Your task to perform on an android device: check the backup settings in the google photos Image 0: 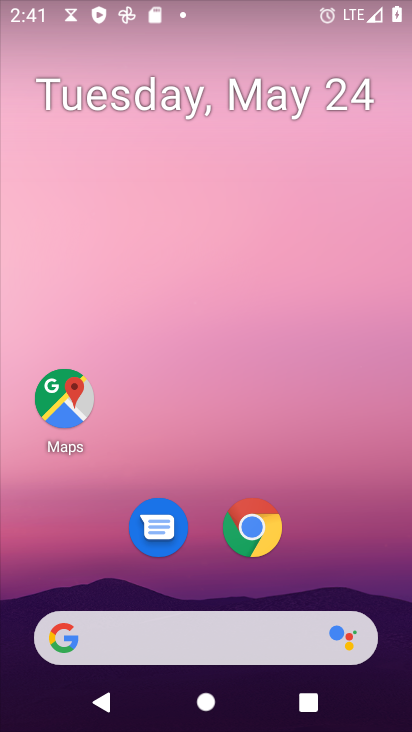
Step 0: press home button
Your task to perform on an android device: check the backup settings in the google photos Image 1: 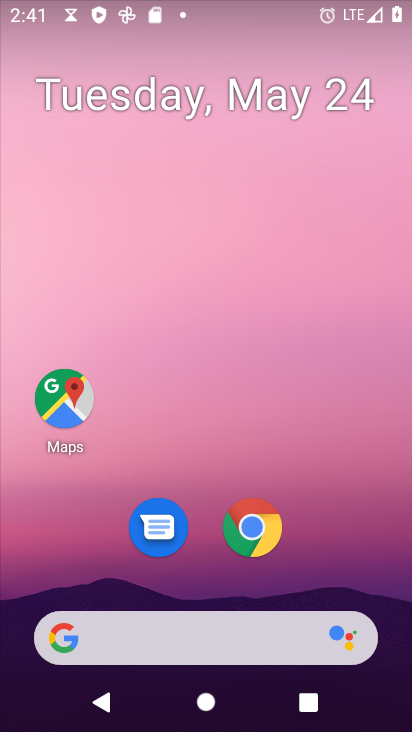
Step 1: drag from (215, 636) to (250, 215)
Your task to perform on an android device: check the backup settings in the google photos Image 2: 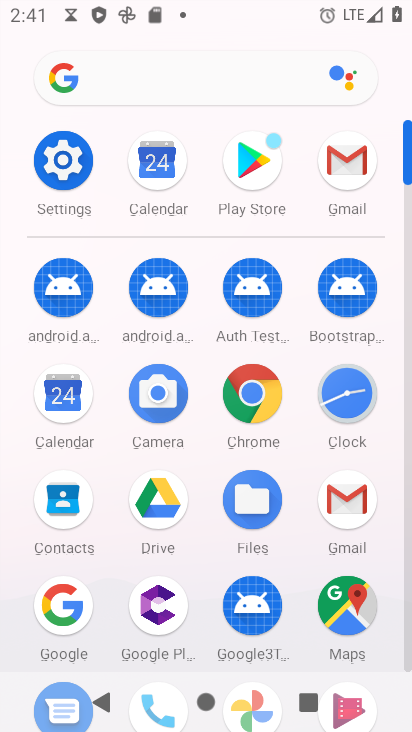
Step 2: drag from (222, 646) to (277, 258)
Your task to perform on an android device: check the backup settings in the google photos Image 3: 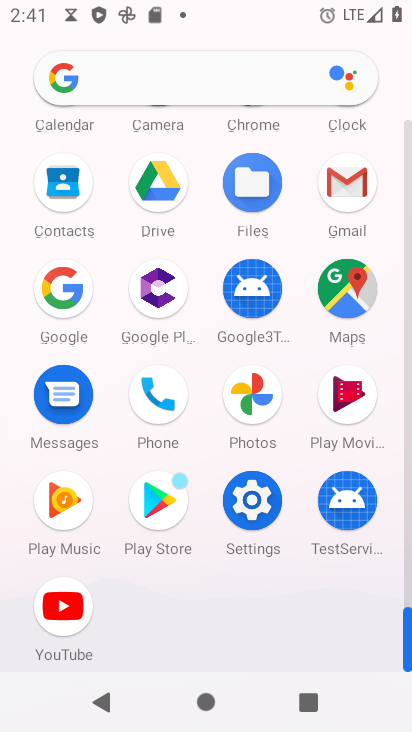
Step 3: click (237, 405)
Your task to perform on an android device: check the backup settings in the google photos Image 4: 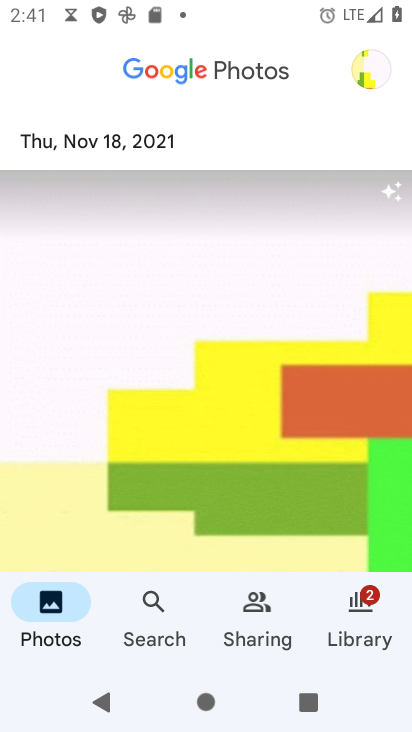
Step 4: click (356, 84)
Your task to perform on an android device: check the backup settings in the google photos Image 5: 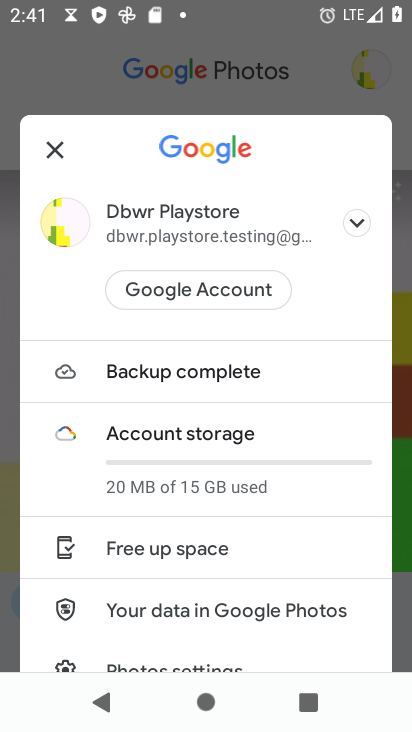
Step 5: drag from (237, 559) to (311, 115)
Your task to perform on an android device: check the backup settings in the google photos Image 6: 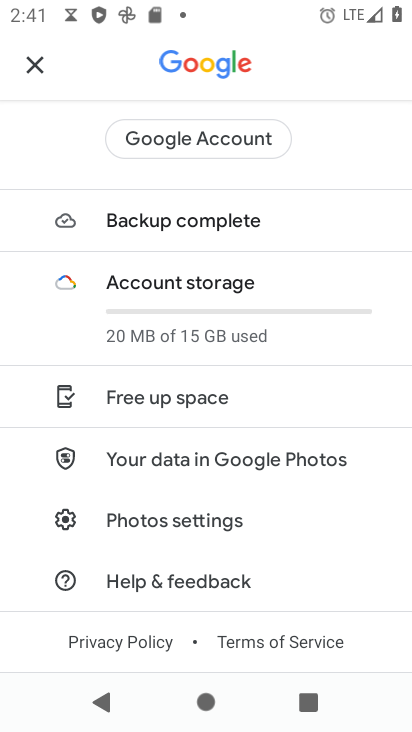
Step 6: click (181, 526)
Your task to perform on an android device: check the backup settings in the google photos Image 7: 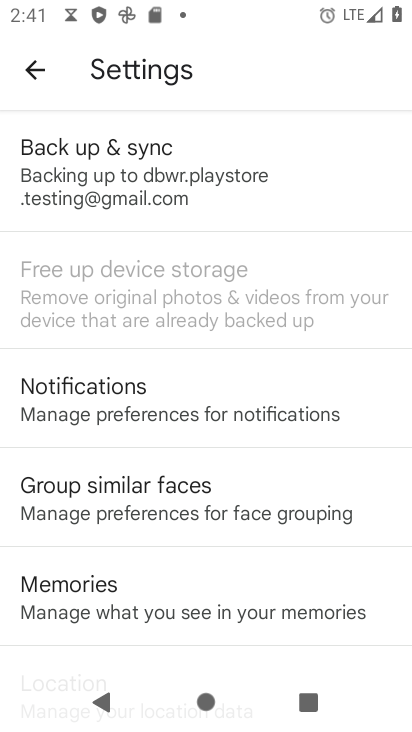
Step 7: click (129, 169)
Your task to perform on an android device: check the backup settings in the google photos Image 8: 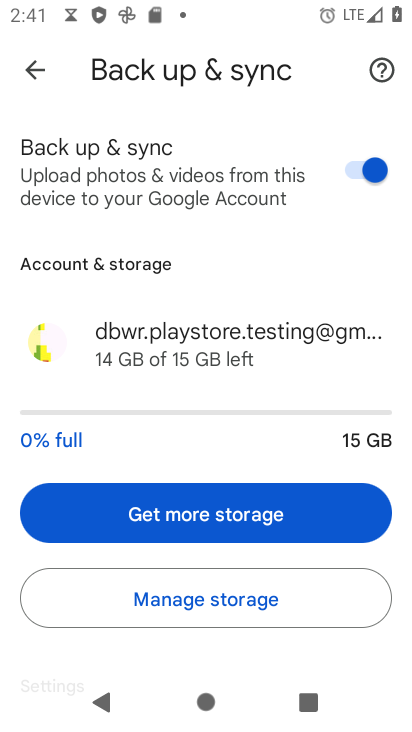
Step 8: task complete